Your task to perform on an android device: visit the assistant section in the google photos Image 0: 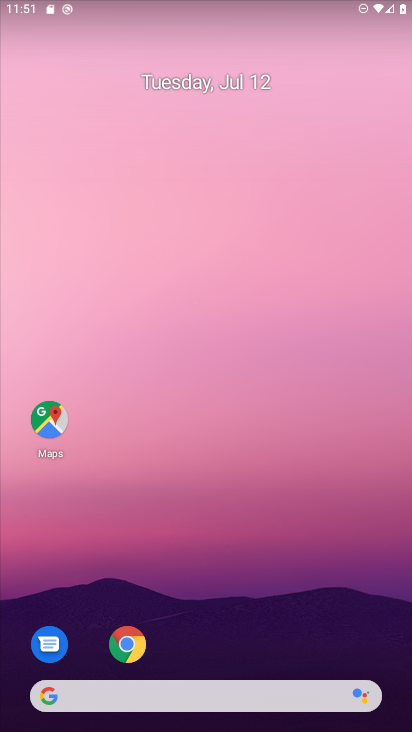
Step 0: drag from (101, 656) to (198, 23)
Your task to perform on an android device: visit the assistant section in the google photos Image 1: 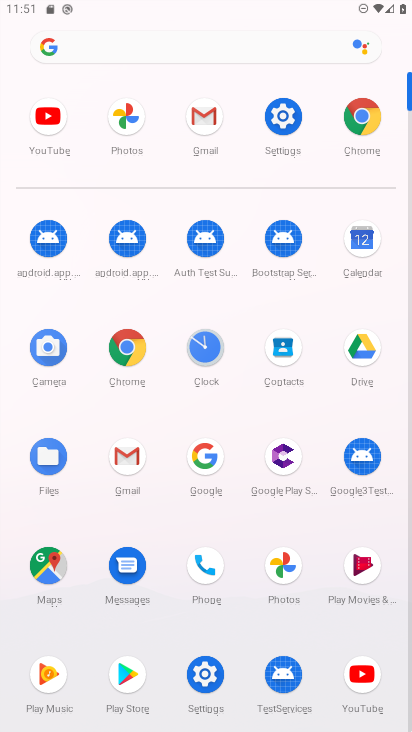
Step 1: click (123, 103)
Your task to perform on an android device: visit the assistant section in the google photos Image 2: 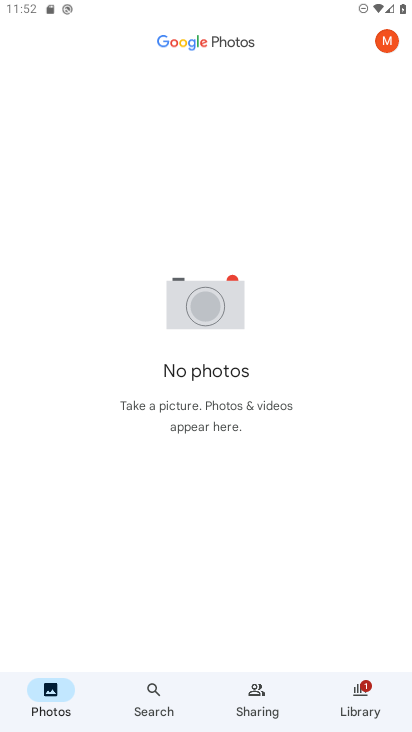
Step 2: task complete